Your task to perform on an android device: clear all cookies in the chrome app Image 0: 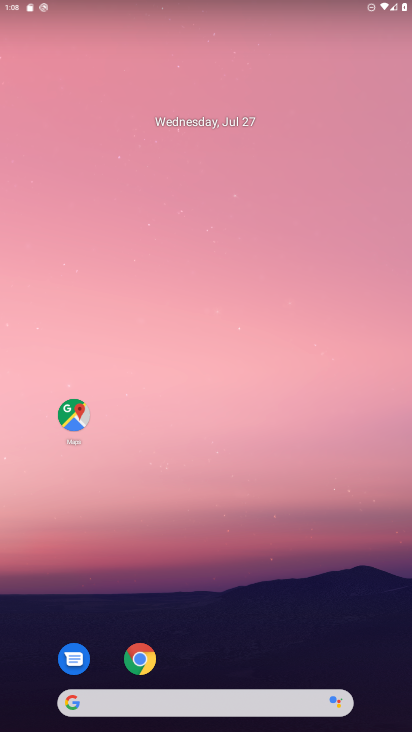
Step 0: click (151, 665)
Your task to perform on an android device: clear all cookies in the chrome app Image 1: 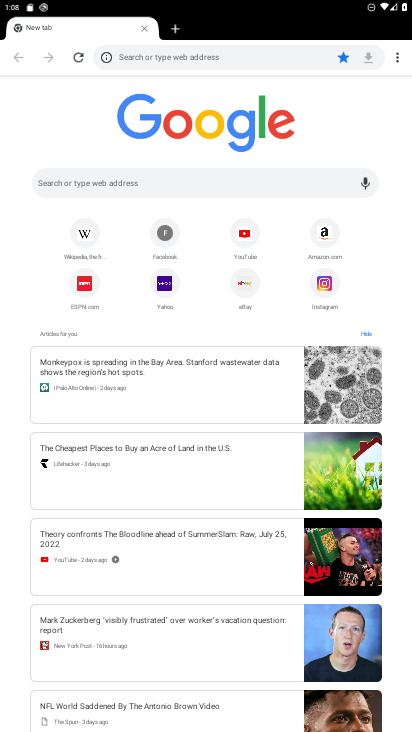
Step 1: click (401, 53)
Your task to perform on an android device: clear all cookies in the chrome app Image 2: 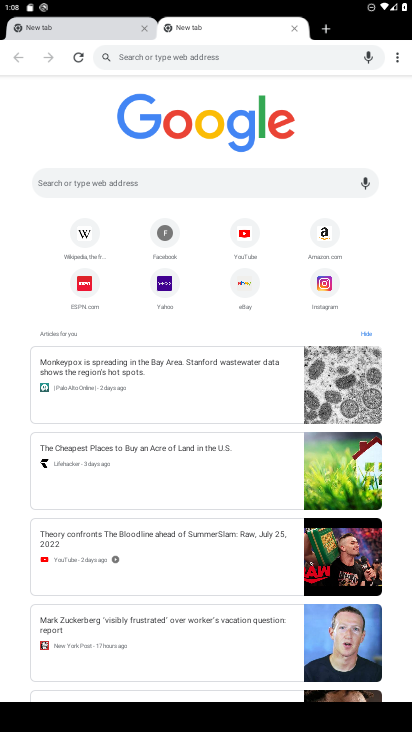
Step 2: click (395, 57)
Your task to perform on an android device: clear all cookies in the chrome app Image 3: 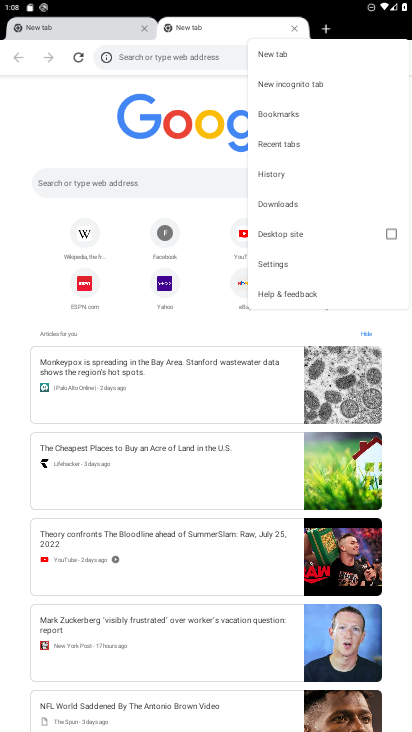
Step 3: click (275, 260)
Your task to perform on an android device: clear all cookies in the chrome app Image 4: 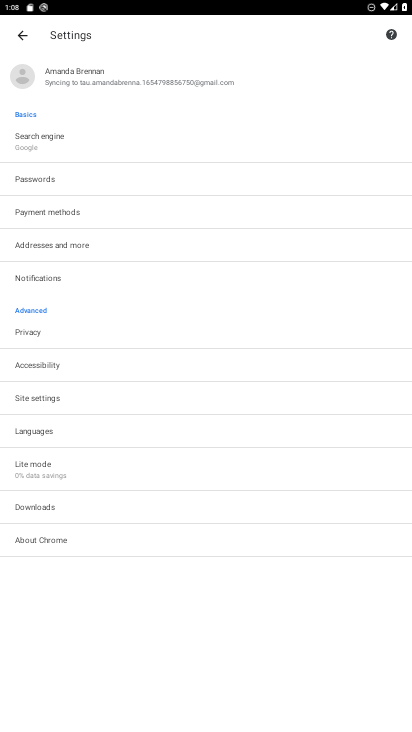
Step 4: click (60, 396)
Your task to perform on an android device: clear all cookies in the chrome app Image 5: 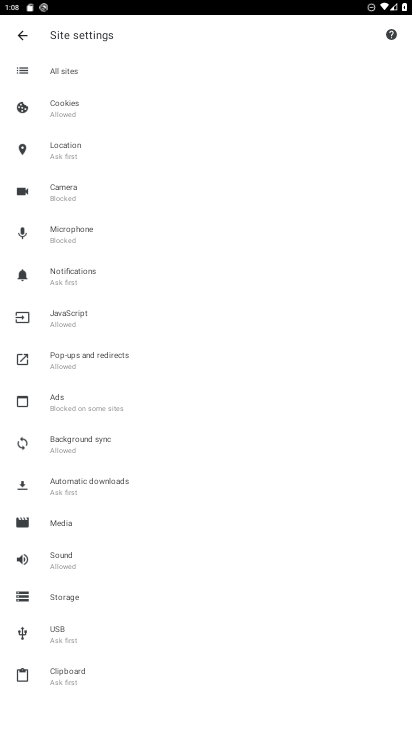
Step 5: click (86, 111)
Your task to perform on an android device: clear all cookies in the chrome app Image 6: 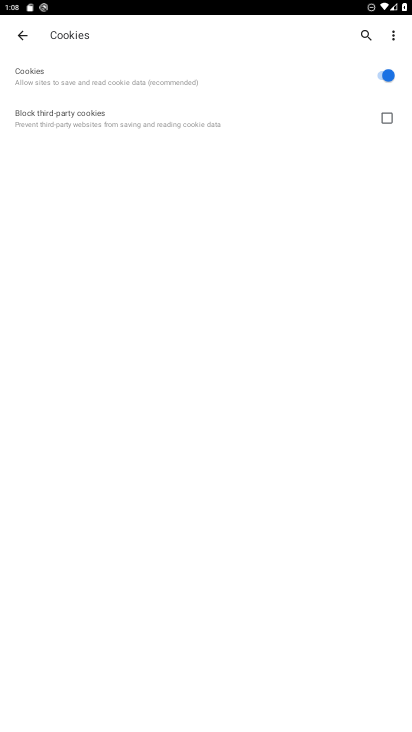
Step 6: click (398, 34)
Your task to perform on an android device: clear all cookies in the chrome app Image 7: 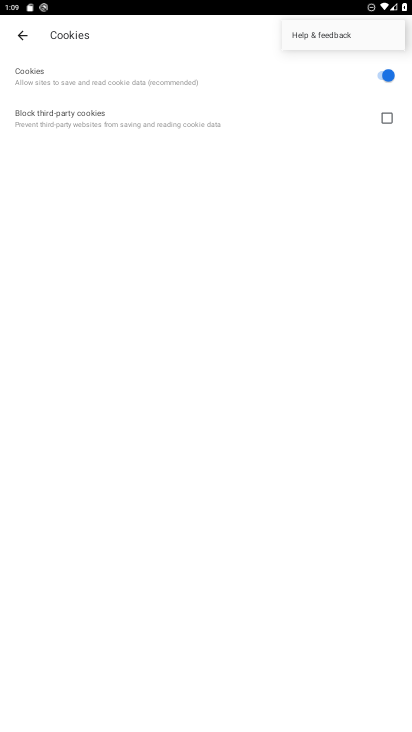
Step 7: click (216, 247)
Your task to perform on an android device: clear all cookies in the chrome app Image 8: 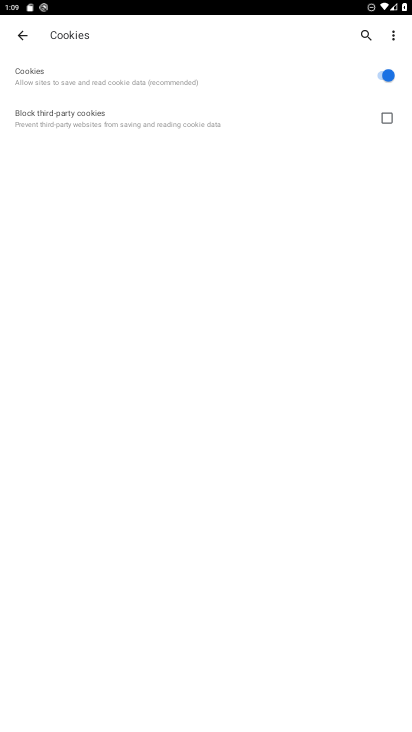
Step 8: task complete